Your task to perform on an android device: Is it going to rain this weekend? Image 0: 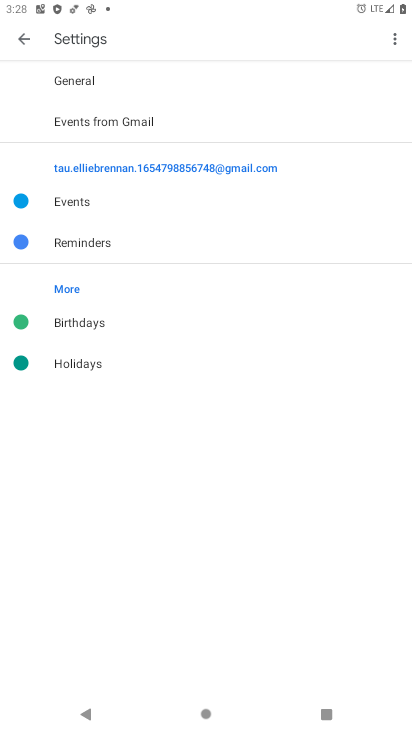
Step 0: press home button
Your task to perform on an android device: Is it going to rain this weekend? Image 1: 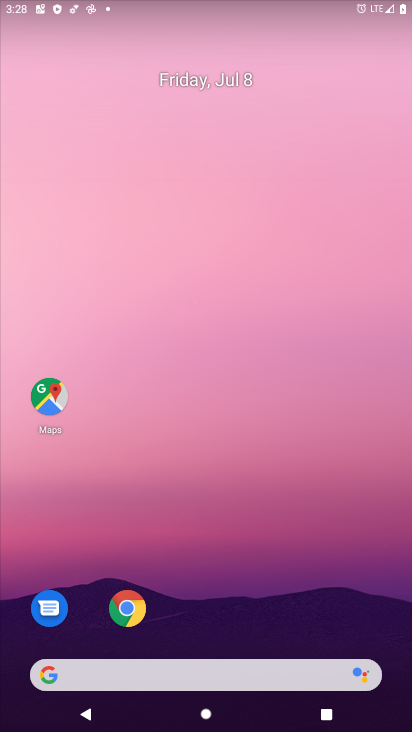
Step 1: drag from (260, 671) to (240, 2)
Your task to perform on an android device: Is it going to rain this weekend? Image 2: 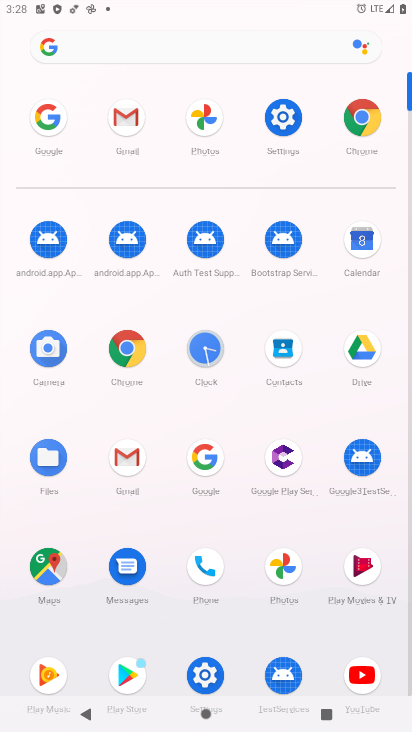
Step 2: click (358, 239)
Your task to perform on an android device: Is it going to rain this weekend? Image 3: 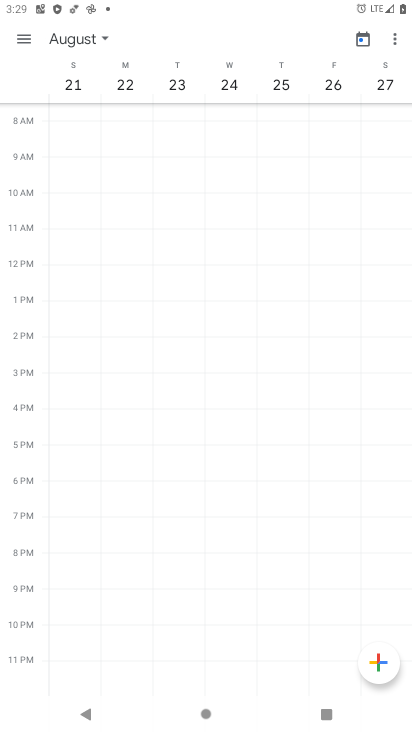
Step 3: press home button
Your task to perform on an android device: Is it going to rain this weekend? Image 4: 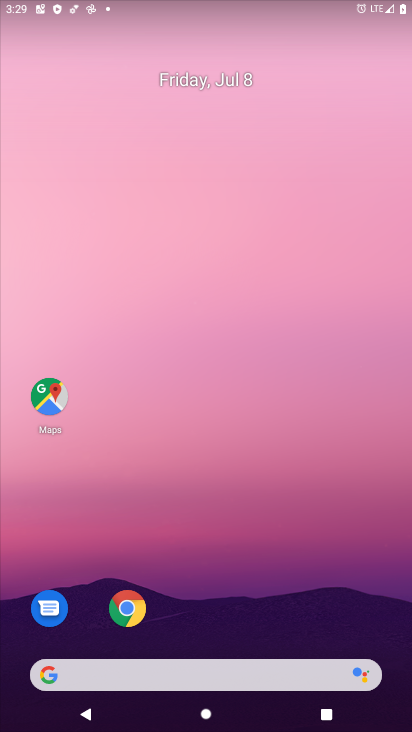
Step 4: drag from (229, 579) to (265, 43)
Your task to perform on an android device: Is it going to rain this weekend? Image 5: 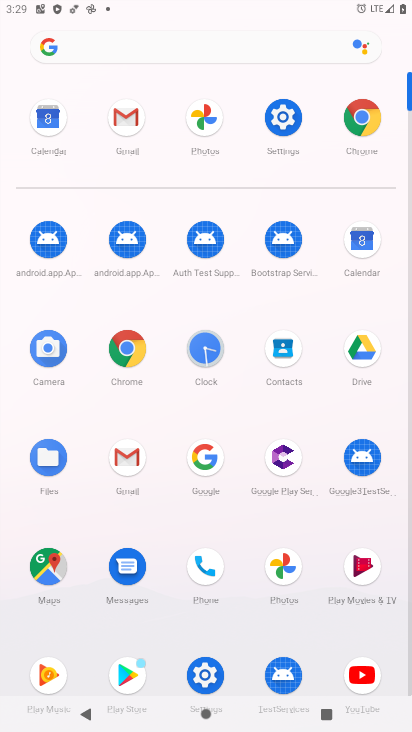
Step 5: click (200, 446)
Your task to perform on an android device: Is it going to rain this weekend? Image 6: 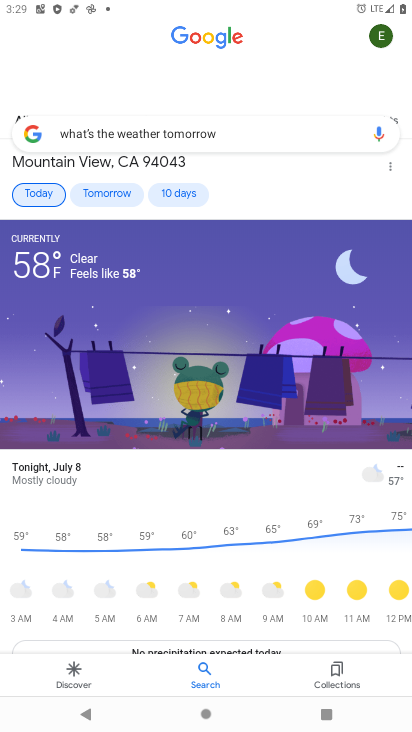
Step 6: click (169, 189)
Your task to perform on an android device: Is it going to rain this weekend? Image 7: 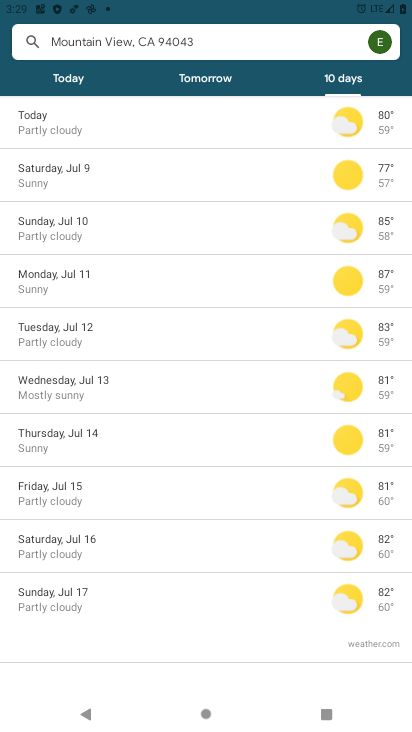
Step 7: task complete